Your task to perform on an android device: search for starred emails in the gmail app Image 0: 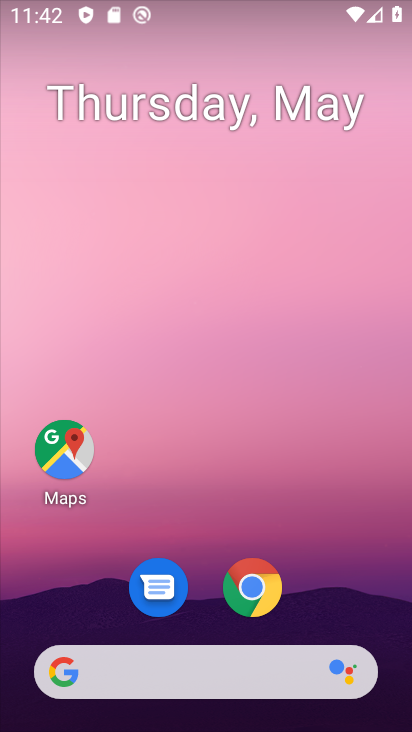
Step 0: drag from (180, 555) to (241, 36)
Your task to perform on an android device: search for starred emails in the gmail app Image 1: 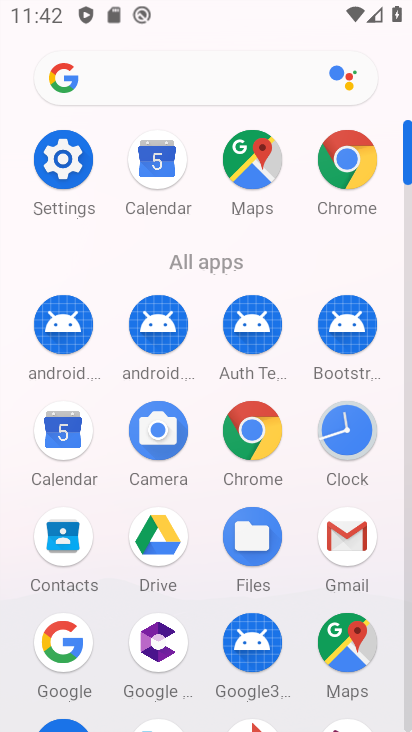
Step 1: click (340, 537)
Your task to perform on an android device: search for starred emails in the gmail app Image 2: 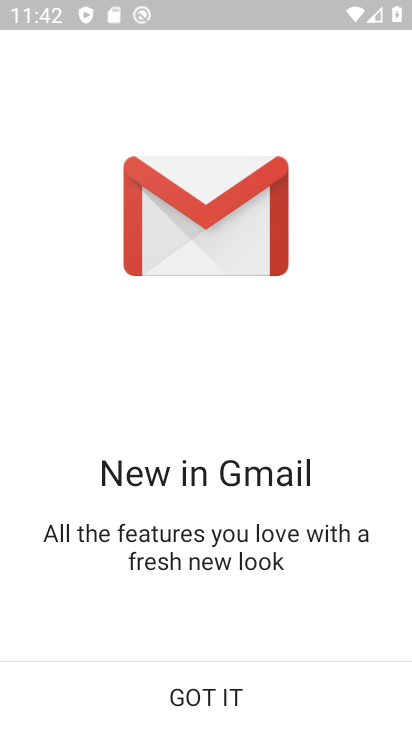
Step 2: click (178, 699)
Your task to perform on an android device: search for starred emails in the gmail app Image 3: 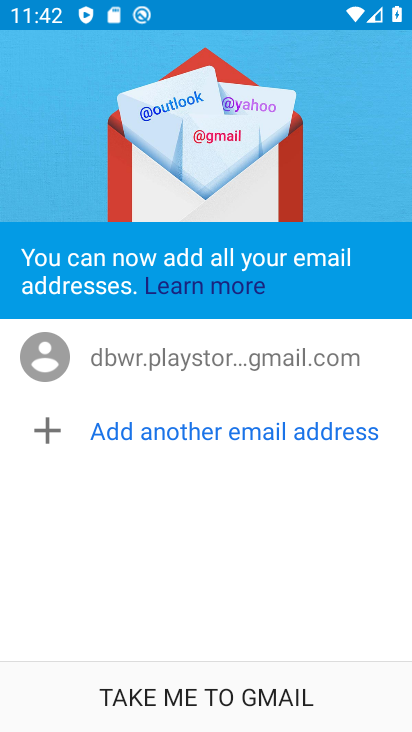
Step 3: click (159, 712)
Your task to perform on an android device: search for starred emails in the gmail app Image 4: 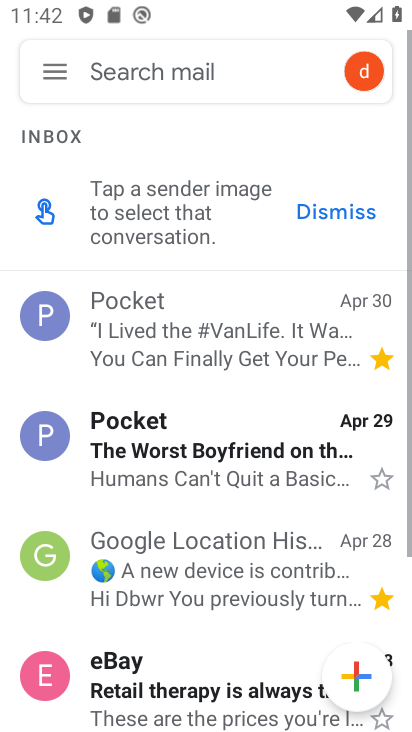
Step 4: click (50, 70)
Your task to perform on an android device: search for starred emails in the gmail app Image 5: 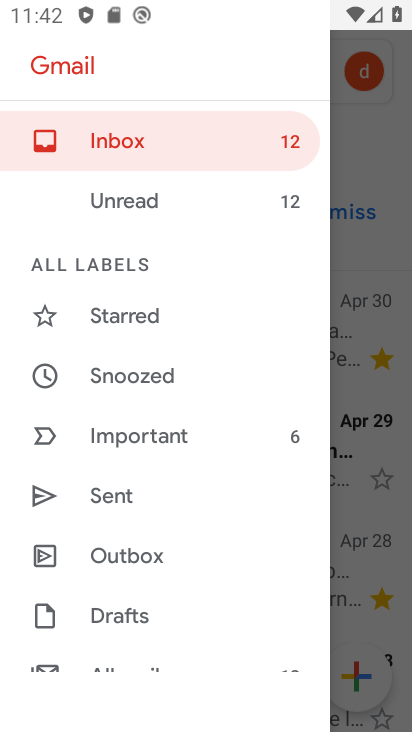
Step 5: click (125, 311)
Your task to perform on an android device: search for starred emails in the gmail app Image 6: 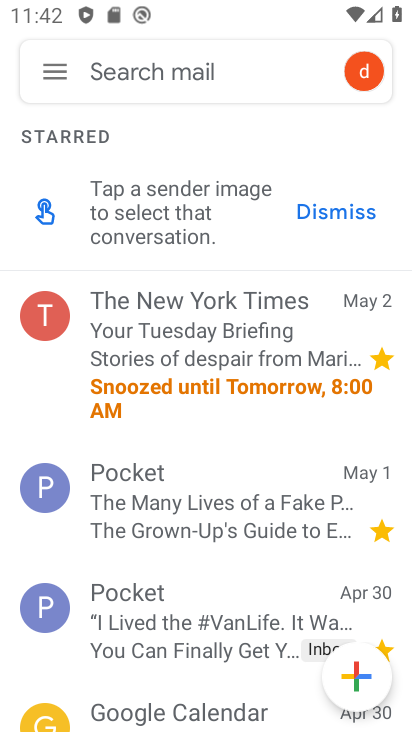
Step 6: click (51, 68)
Your task to perform on an android device: search for starred emails in the gmail app Image 7: 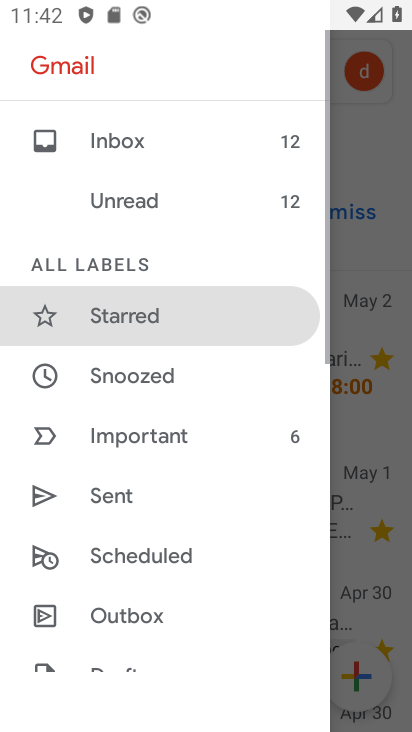
Step 7: click (111, 313)
Your task to perform on an android device: search for starred emails in the gmail app Image 8: 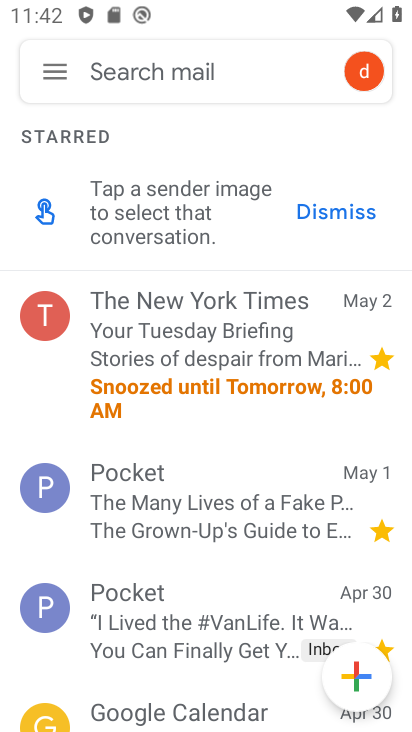
Step 8: task complete